Your task to perform on an android device: Go to settings Image 0: 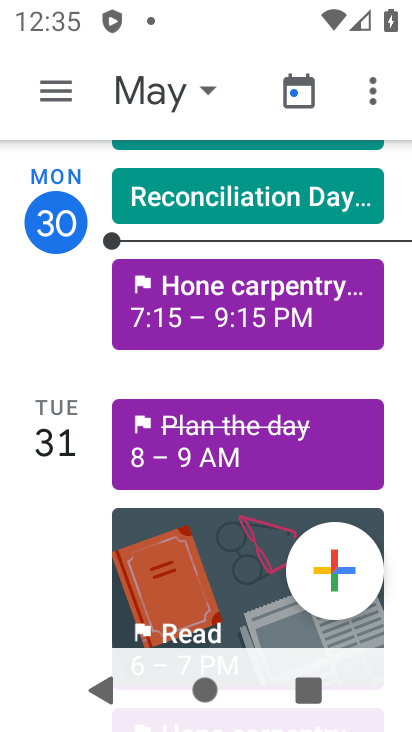
Step 0: press home button
Your task to perform on an android device: Go to settings Image 1: 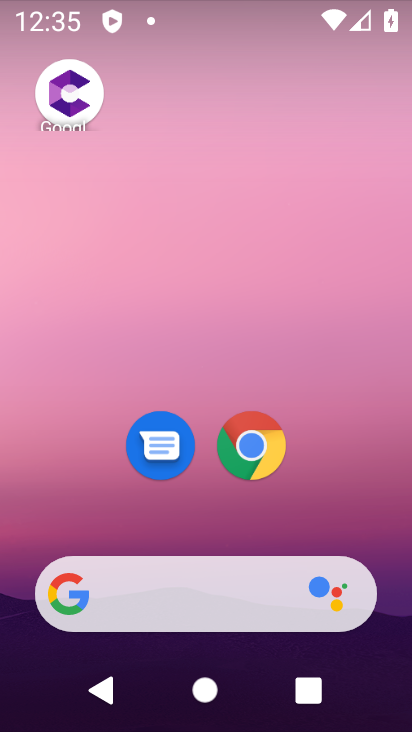
Step 1: drag from (314, 191) to (293, 44)
Your task to perform on an android device: Go to settings Image 2: 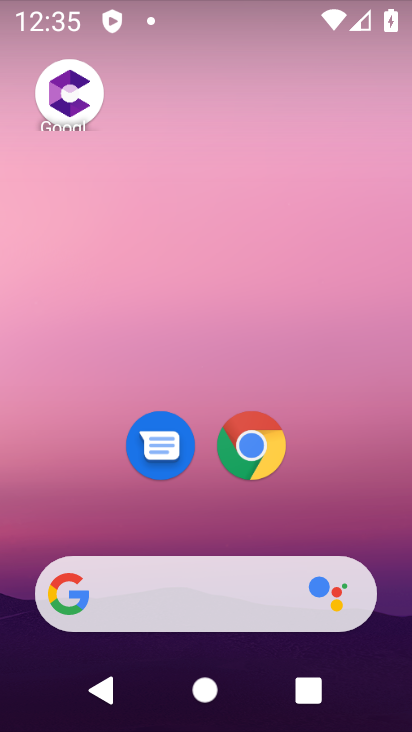
Step 2: drag from (385, 600) to (324, 115)
Your task to perform on an android device: Go to settings Image 3: 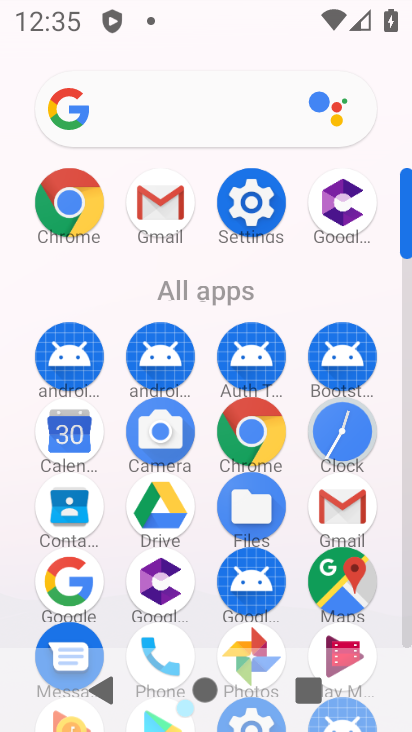
Step 3: click (407, 624)
Your task to perform on an android device: Go to settings Image 4: 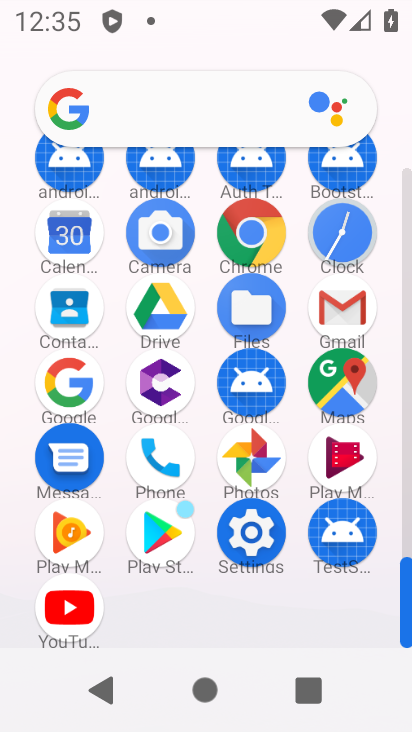
Step 4: click (244, 531)
Your task to perform on an android device: Go to settings Image 5: 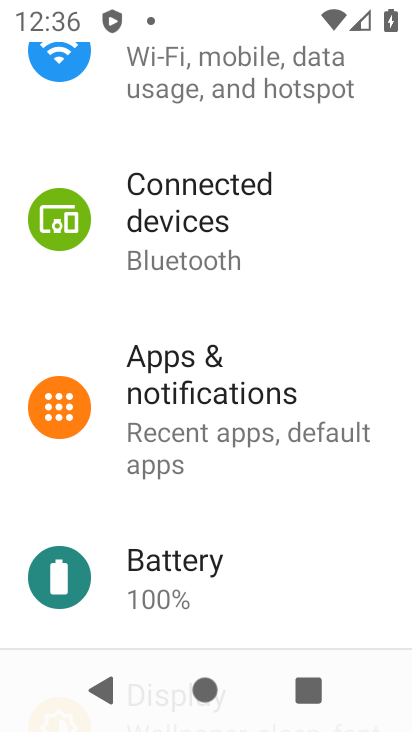
Step 5: task complete